Your task to perform on an android device: all mails in gmail Image 0: 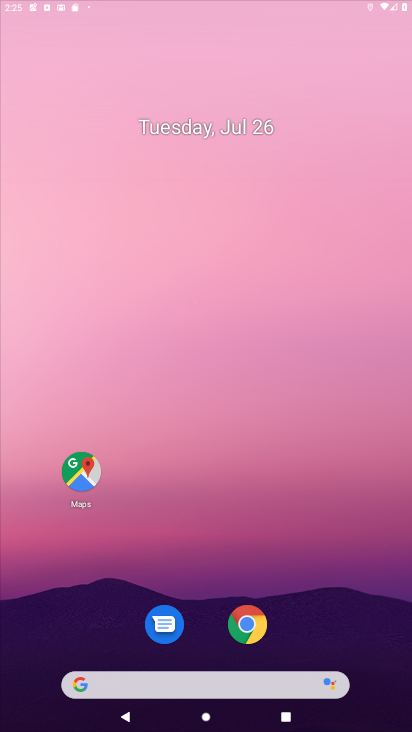
Step 0: click (258, 622)
Your task to perform on an android device: all mails in gmail Image 1: 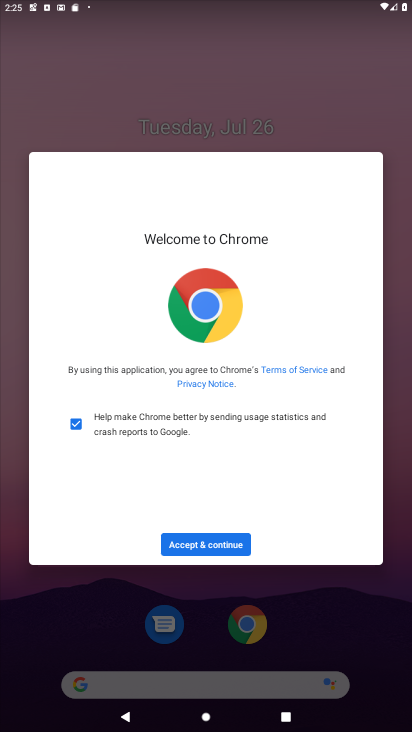
Step 1: press home button
Your task to perform on an android device: all mails in gmail Image 2: 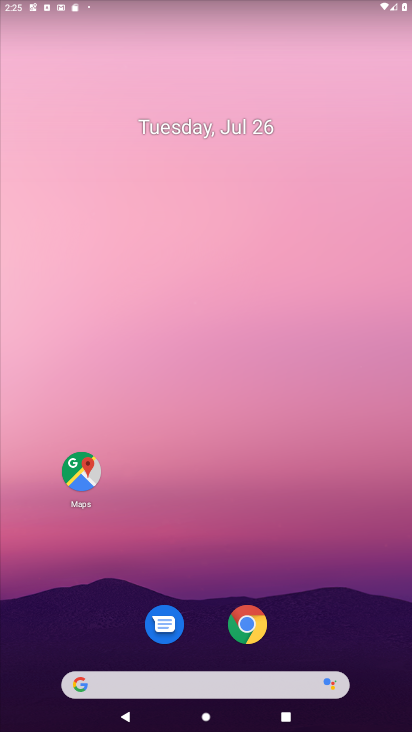
Step 2: drag from (157, 663) to (225, 91)
Your task to perform on an android device: all mails in gmail Image 3: 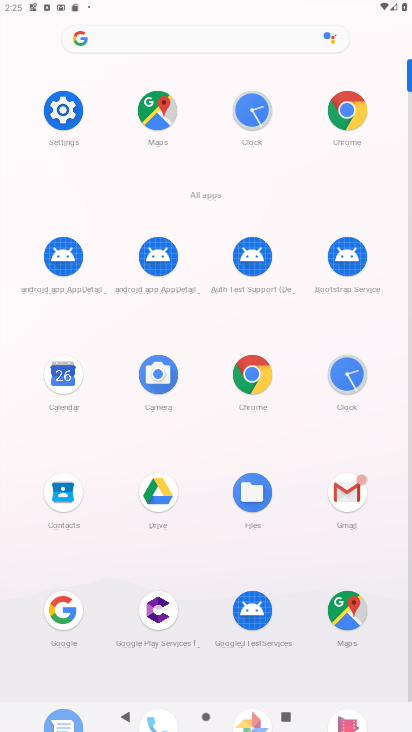
Step 3: click (349, 491)
Your task to perform on an android device: all mails in gmail Image 4: 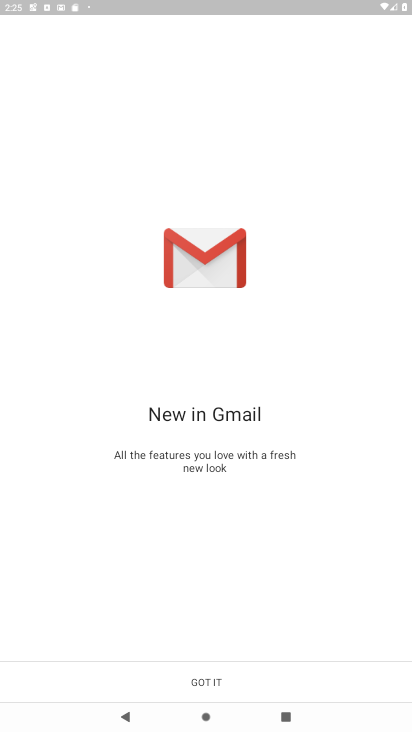
Step 4: click (210, 666)
Your task to perform on an android device: all mails in gmail Image 5: 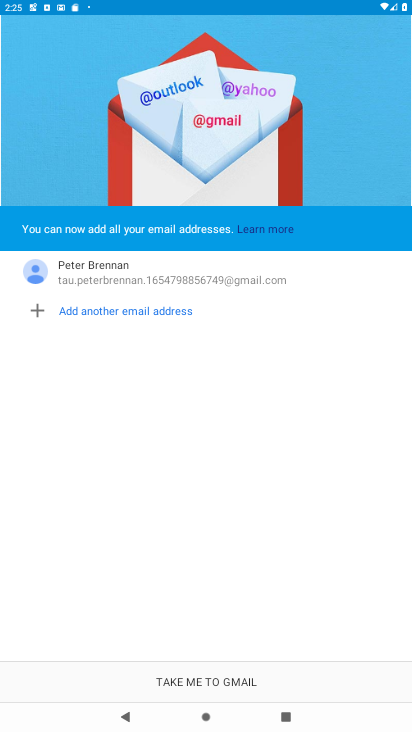
Step 5: click (200, 674)
Your task to perform on an android device: all mails in gmail Image 6: 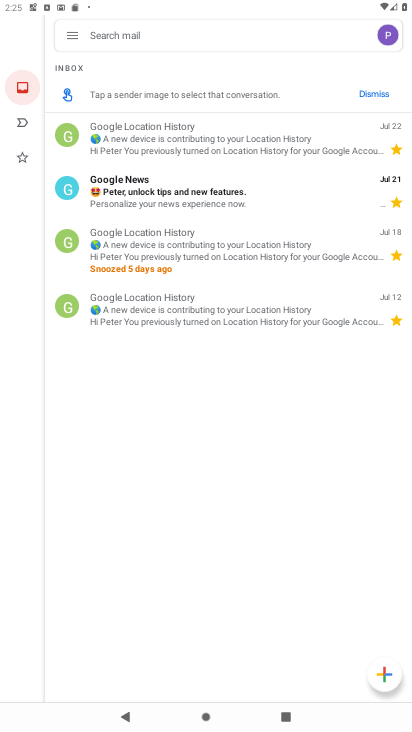
Step 6: click (70, 39)
Your task to perform on an android device: all mails in gmail Image 7: 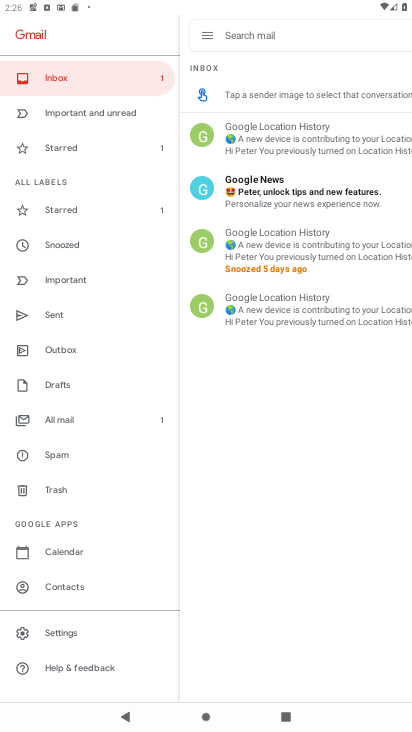
Step 7: click (70, 413)
Your task to perform on an android device: all mails in gmail Image 8: 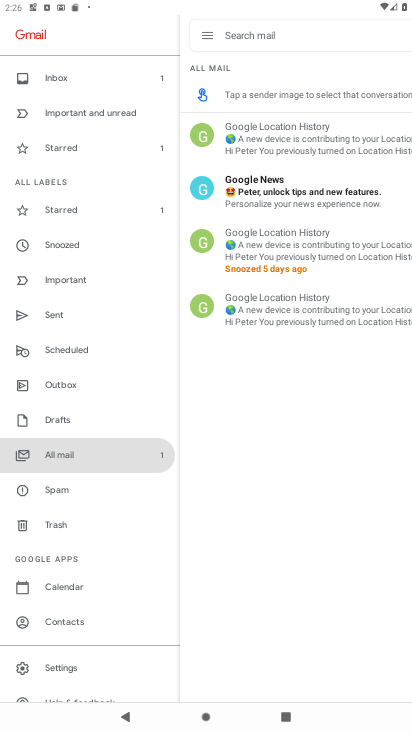
Step 8: task complete